Your task to perform on an android device: clear all cookies in the chrome app Image 0: 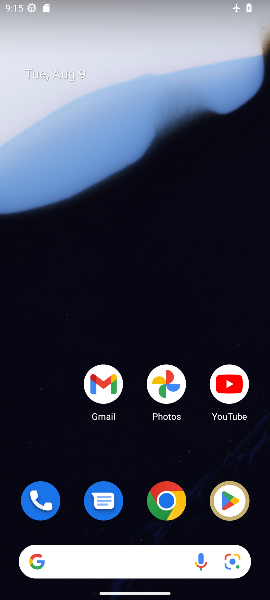
Step 0: click (165, 499)
Your task to perform on an android device: clear all cookies in the chrome app Image 1: 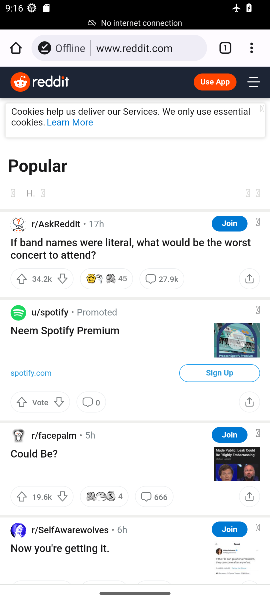
Step 1: click (252, 45)
Your task to perform on an android device: clear all cookies in the chrome app Image 2: 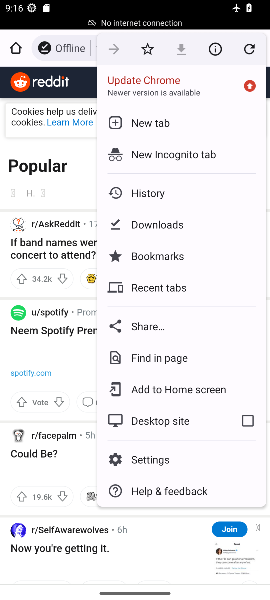
Step 2: click (142, 188)
Your task to perform on an android device: clear all cookies in the chrome app Image 3: 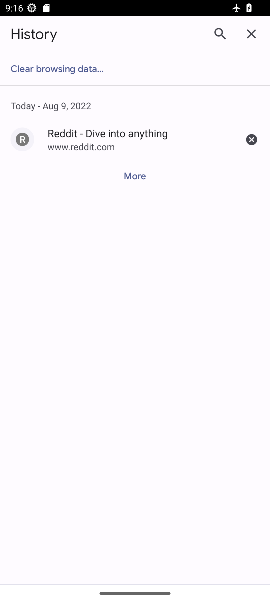
Step 3: click (61, 67)
Your task to perform on an android device: clear all cookies in the chrome app Image 4: 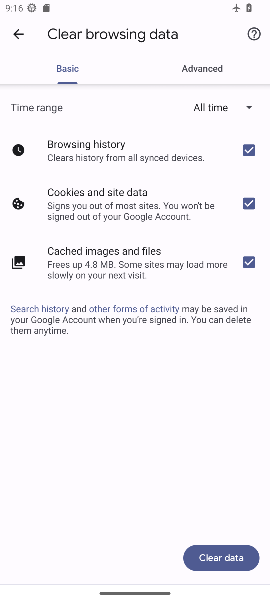
Step 4: click (248, 262)
Your task to perform on an android device: clear all cookies in the chrome app Image 5: 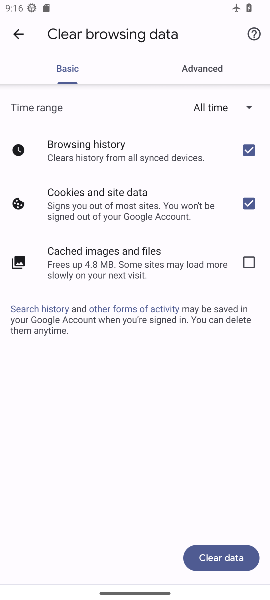
Step 5: click (247, 150)
Your task to perform on an android device: clear all cookies in the chrome app Image 6: 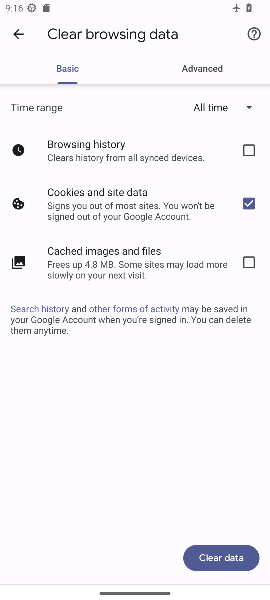
Step 6: click (222, 556)
Your task to perform on an android device: clear all cookies in the chrome app Image 7: 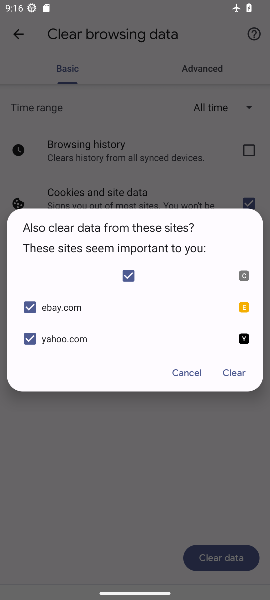
Step 7: click (236, 371)
Your task to perform on an android device: clear all cookies in the chrome app Image 8: 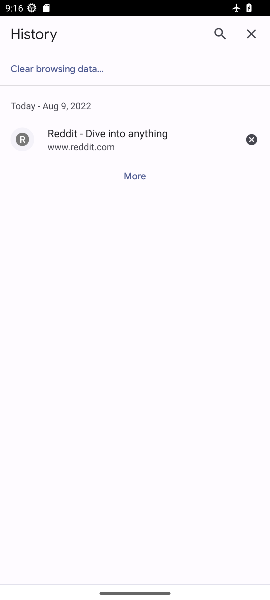
Step 8: task complete